Your task to perform on an android device: turn notification dots on Image 0: 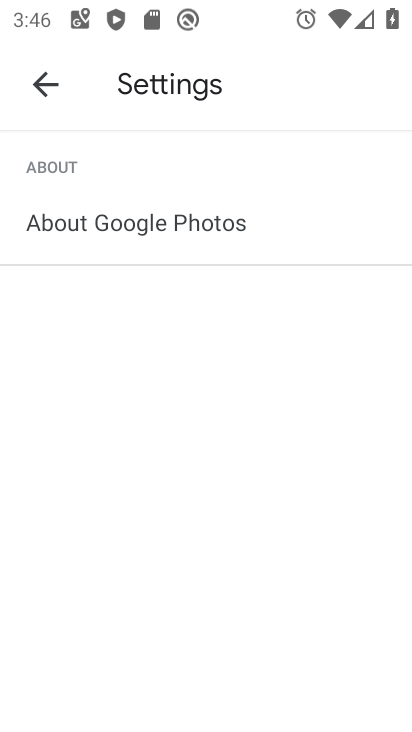
Step 0: press home button
Your task to perform on an android device: turn notification dots on Image 1: 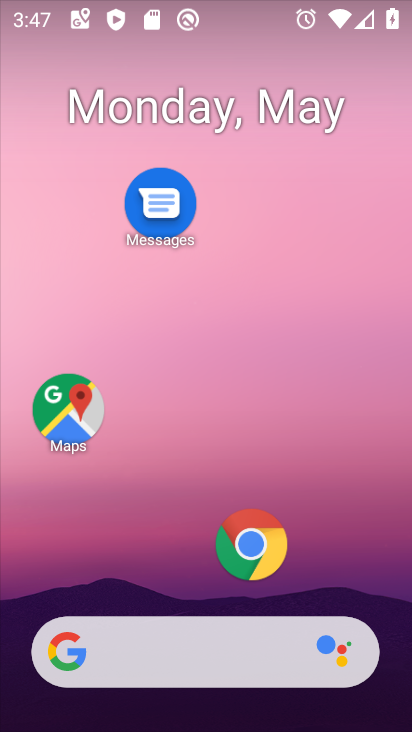
Step 1: drag from (186, 586) to (213, 162)
Your task to perform on an android device: turn notification dots on Image 2: 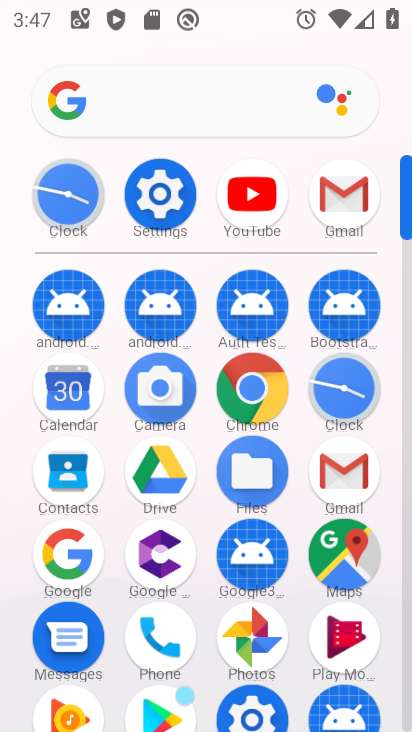
Step 2: click (170, 196)
Your task to perform on an android device: turn notification dots on Image 3: 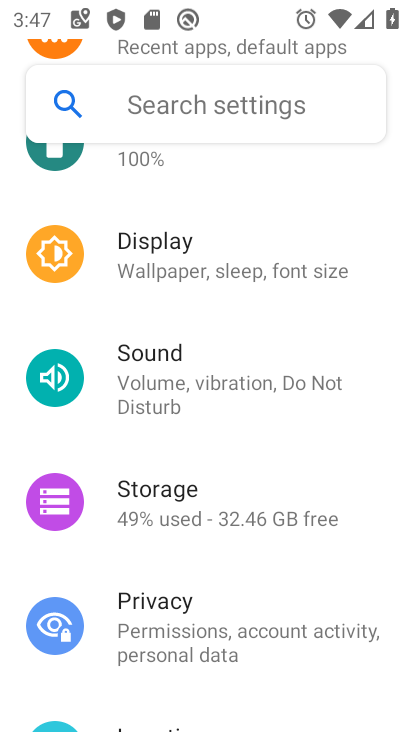
Step 3: drag from (219, 289) to (226, 484)
Your task to perform on an android device: turn notification dots on Image 4: 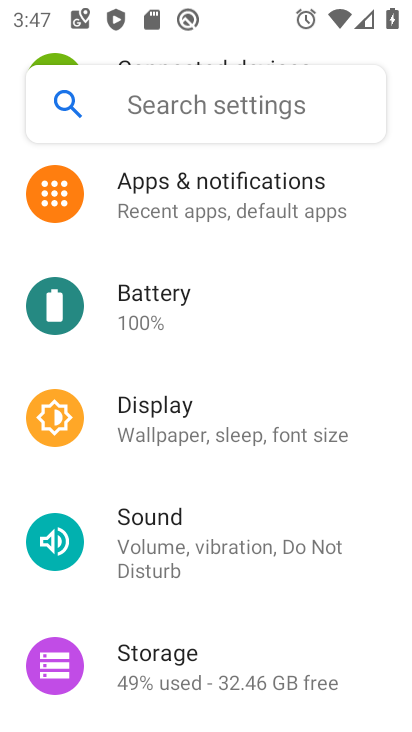
Step 4: click (216, 231)
Your task to perform on an android device: turn notification dots on Image 5: 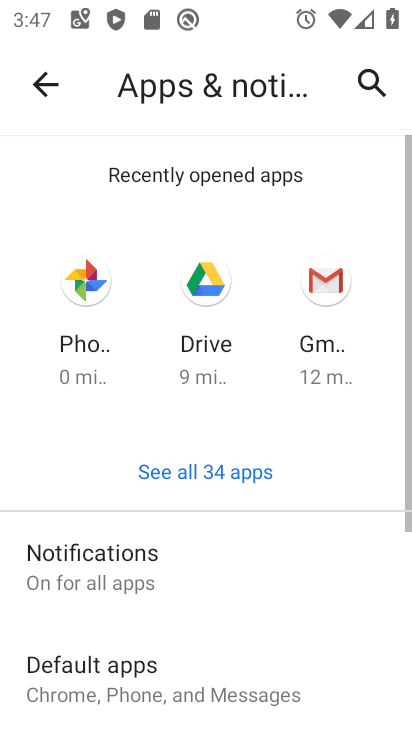
Step 5: click (186, 567)
Your task to perform on an android device: turn notification dots on Image 6: 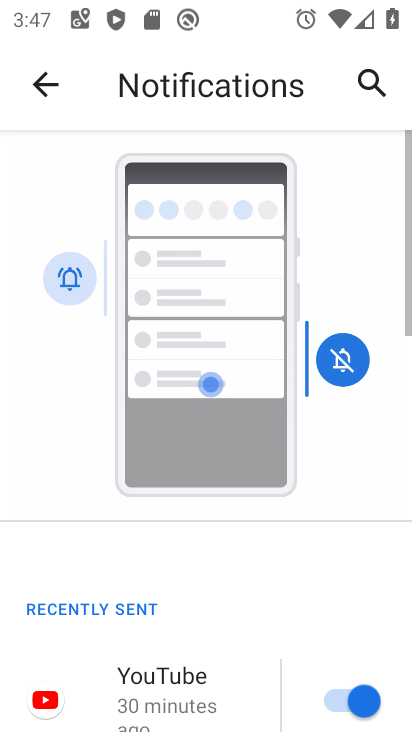
Step 6: drag from (200, 696) to (220, 320)
Your task to perform on an android device: turn notification dots on Image 7: 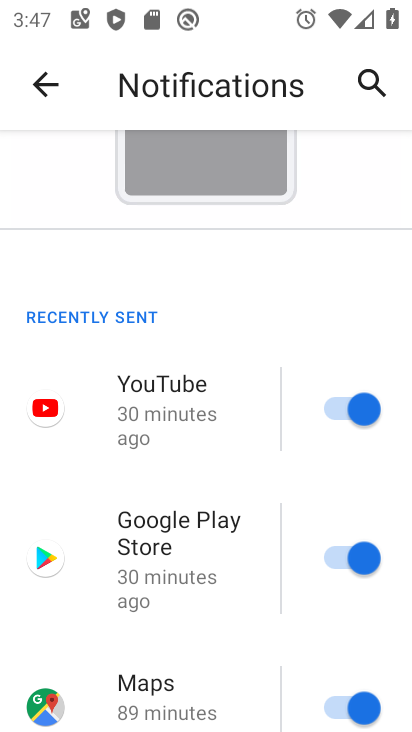
Step 7: drag from (226, 573) to (249, 293)
Your task to perform on an android device: turn notification dots on Image 8: 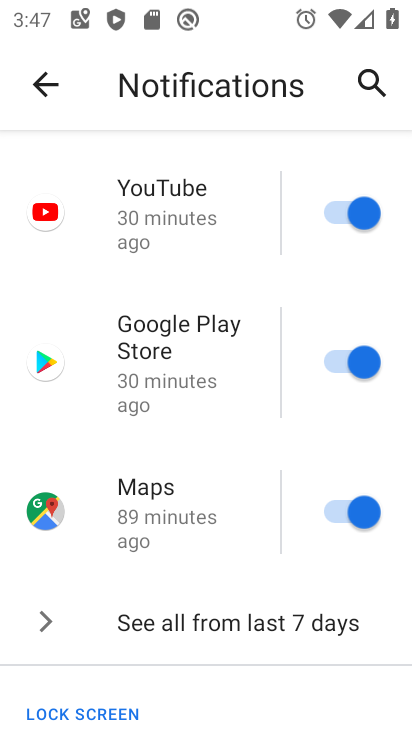
Step 8: drag from (249, 572) to (260, 296)
Your task to perform on an android device: turn notification dots on Image 9: 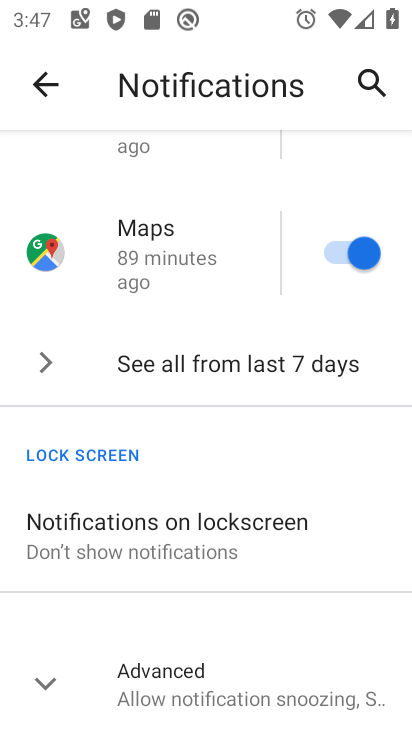
Step 9: drag from (261, 582) to (273, 361)
Your task to perform on an android device: turn notification dots on Image 10: 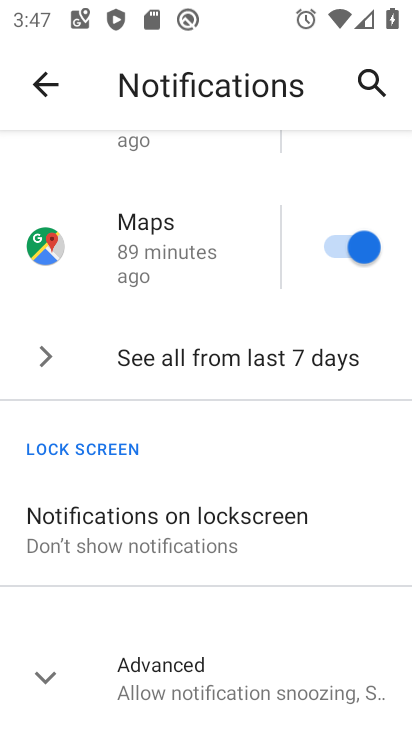
Step 10: click (217, 676)
Your task to perform on an android device: turn notification dots on Image 11: 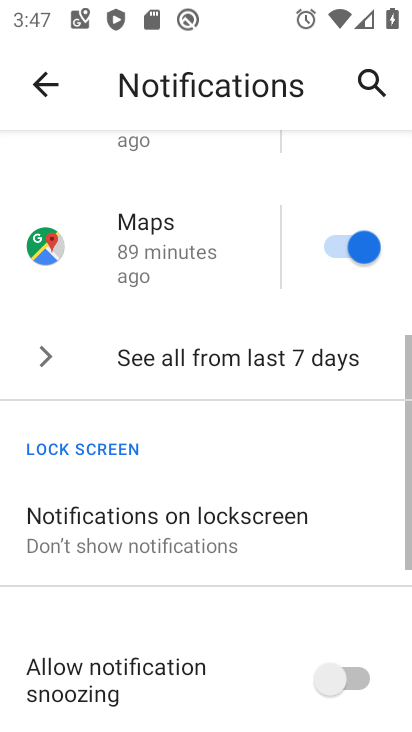
Step 11: task complete